Your task to perform on an android device: turn off location history Image 0: 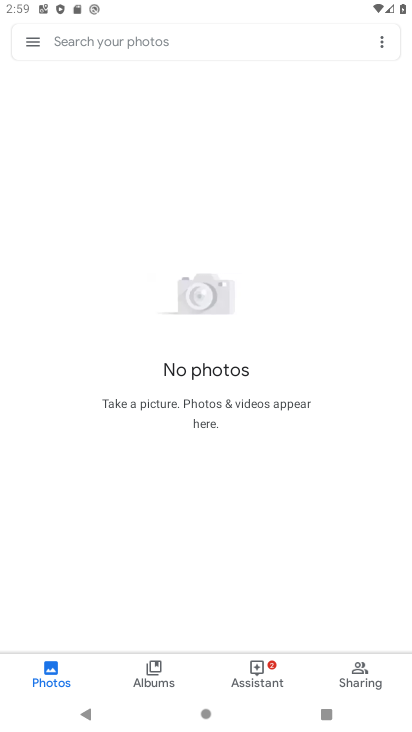
Step 0: press home button
Your task to perform on an android device: turn off location history Image 1: 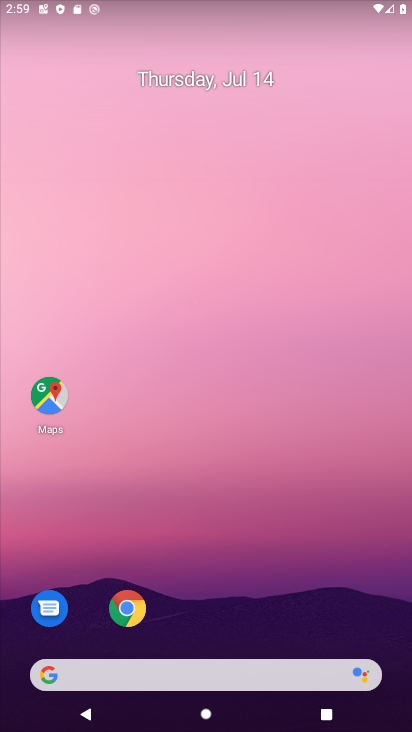
Step 1: drag from (4, 634) to (69, 424)
Your task to perform on an android device: turn off location history Image 2: 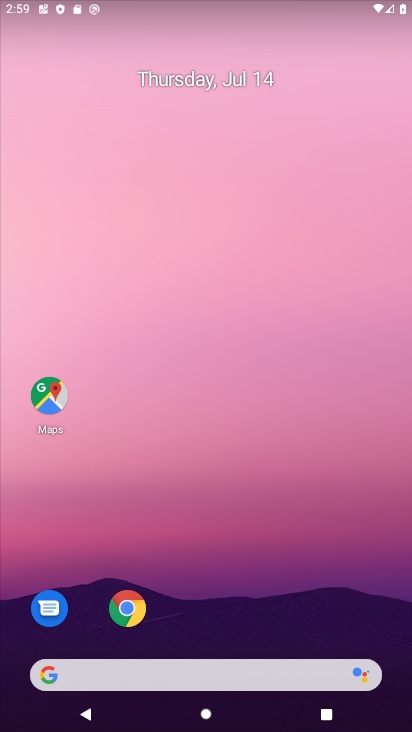
Step 2: drag from (46, 467) to (214, 182)
Your task to perform on an android device: turn off location history Image 3: 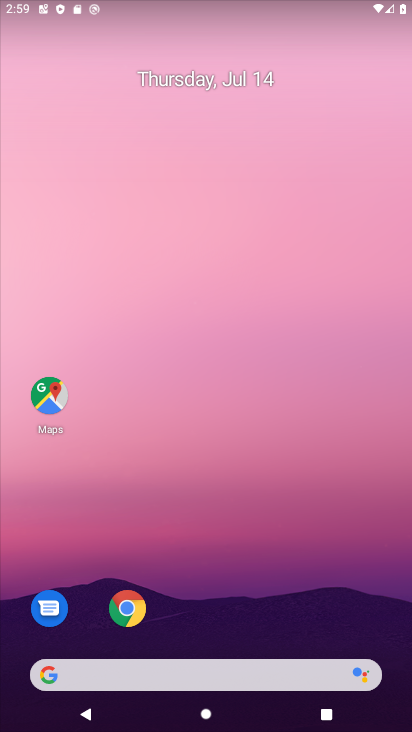
Step 3: drag from (74, 573) to (279, 200)
Your task to perform on an android device: turn off location history Image 4: 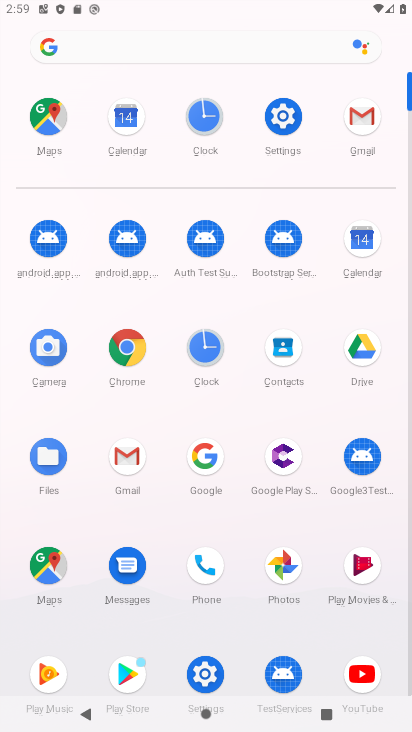
Step 4: click (279, 115)
Your task to perform on an android device: turn off location history Image 5: 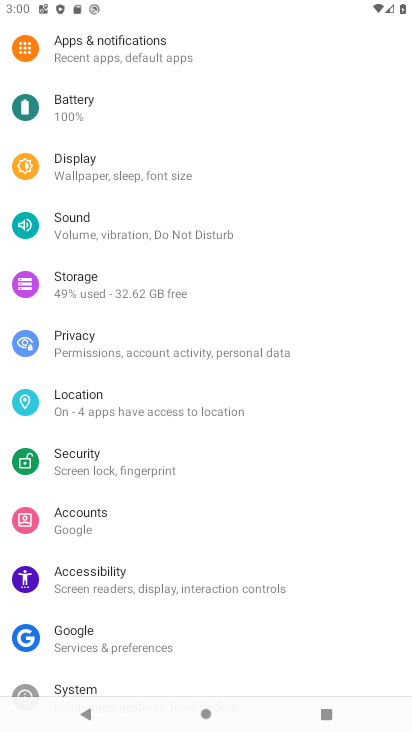
Step 5: click (145, 397)
Your task to perform on an android device: turn off location history Image 6: 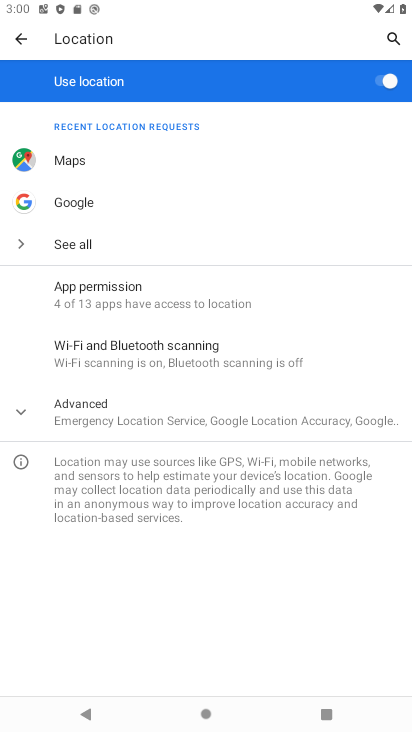
Step 6: click (167, 402)
Your task to perform on an android device: turn off location history Image 7: 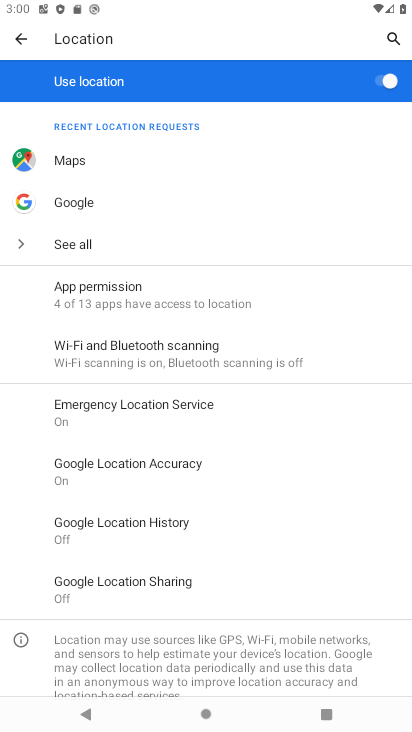
Step 7: click (161, 526)
Your task to perform on an android device: turn off location history Image 8: 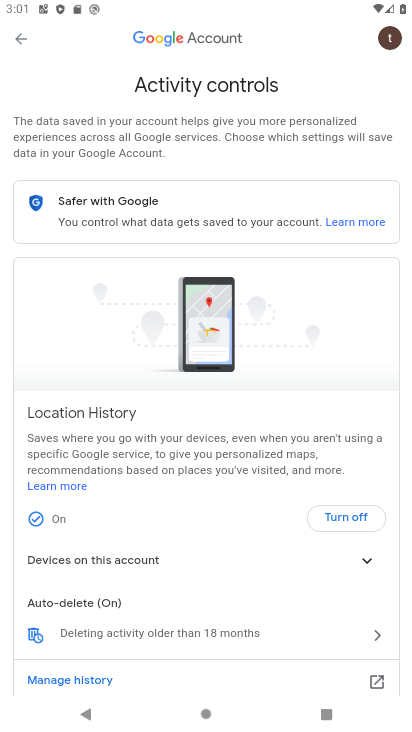
Step 8: click (350, 521)
Your task to perform on an android device: turn off location history Image 9: 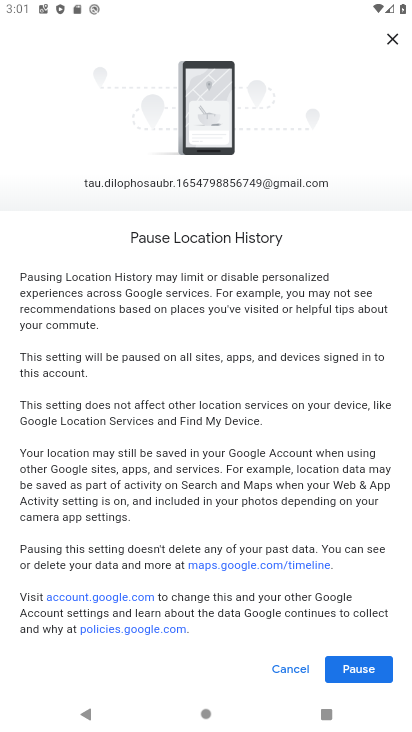
Step 9: click (358, 666)
Your task to perform on an android device: turn off location history Image 10: 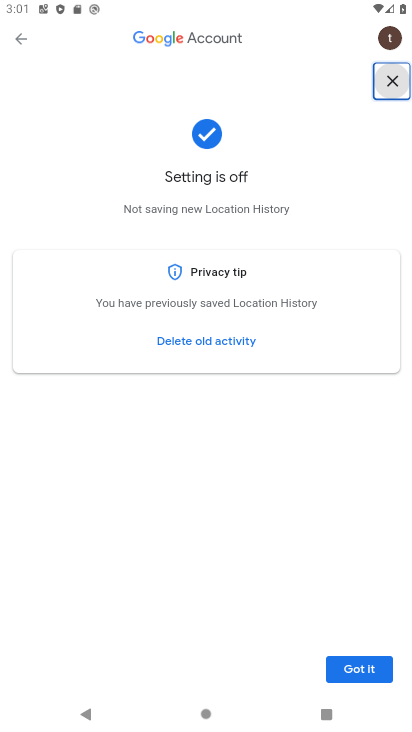
Step 10: task complete